Your task to perform on an android device: How much does a 2 bedroom apartment rent for in Philadelphia? Image 0: 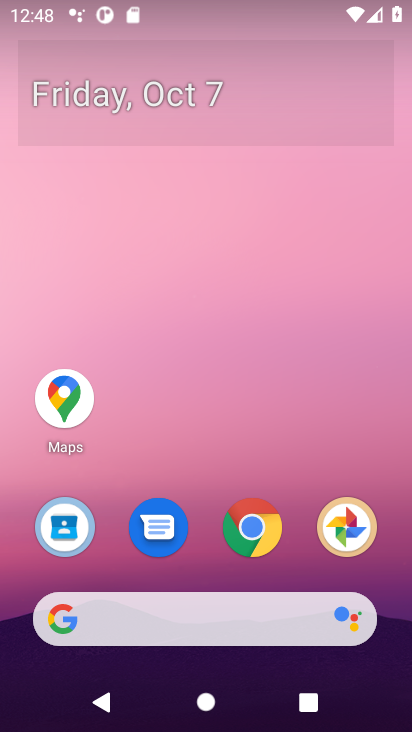
Step 0: drag from (194, 578) to (206, 59)
Your task to perform on an android device: How much does a 2 bedroom apartment rent for in Philadelphia? Image 1: 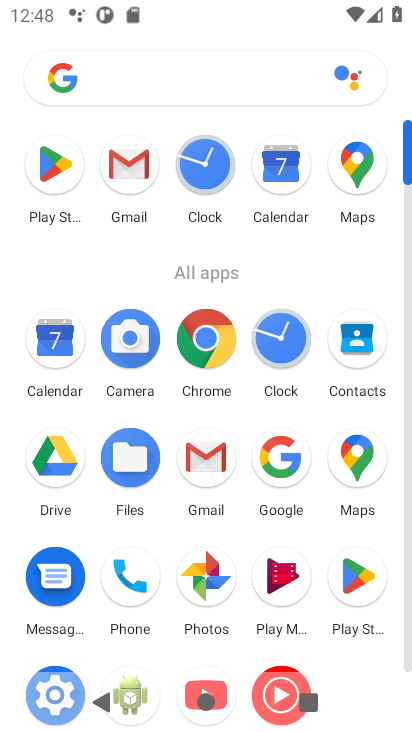
Step 1: press home button
Your task to perform on an android device: How much does a 2 bedroom apartment rent for in Philadelphia? Image 2: 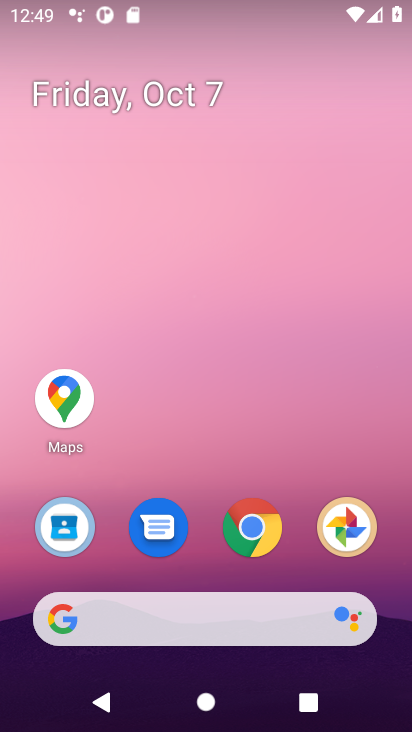
Step 2: click (251, 608)
Your task to perform on an android device: How much does a 2 bedroom apartment rent for in Philadelphia? Image 3: 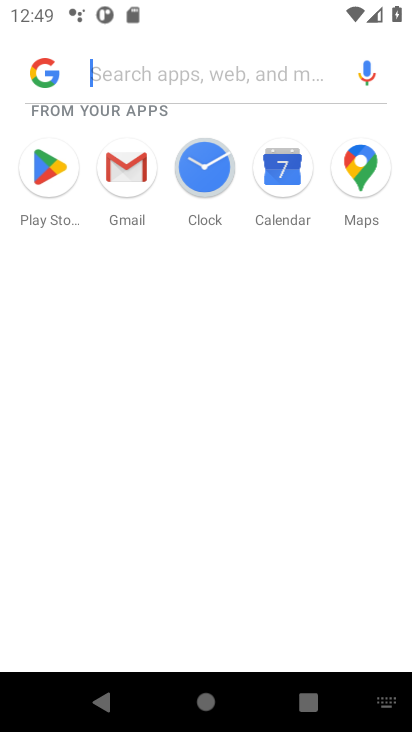
Step 3: type "How much does a 2 bedroom apartment rent for in Philadelphia?"
Your task to perform on an android device: How much does a 2 bedroom apartment rent for in Philadelphia? Image 4: 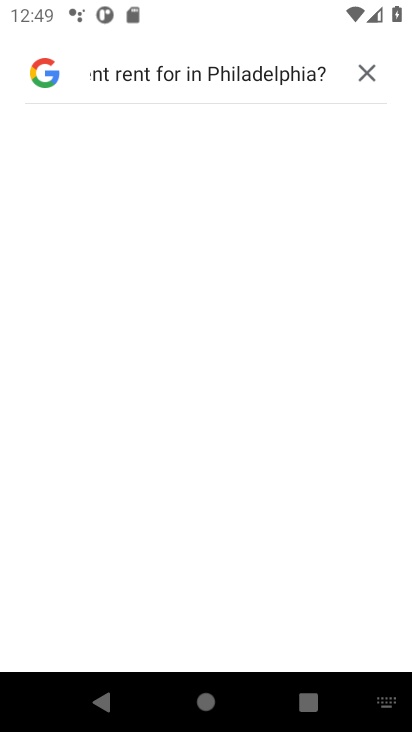
Step 4: task complete